Your task to perform on an android device: Go to Yahoo.com Image 0: 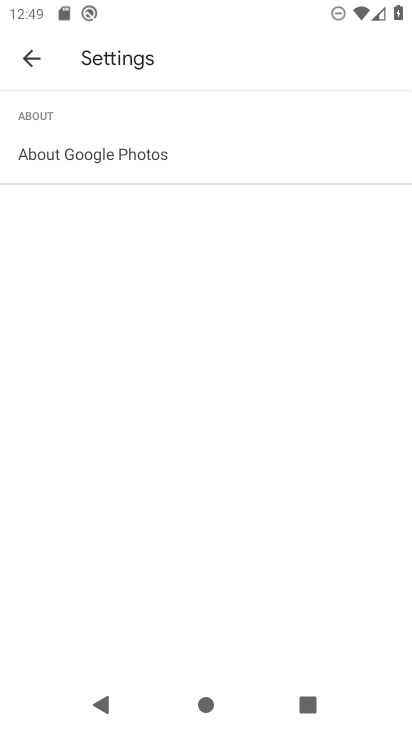
Step 0: press home button
Your task to perform on an android device: Go to Yahoo.com Image 1: 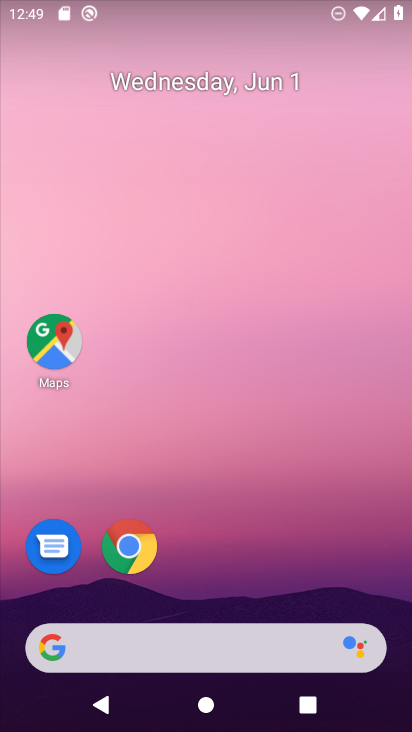
Step 1: click (122, 553)
Your task to perform on an android device: Go to Yahoo.com Image 2: 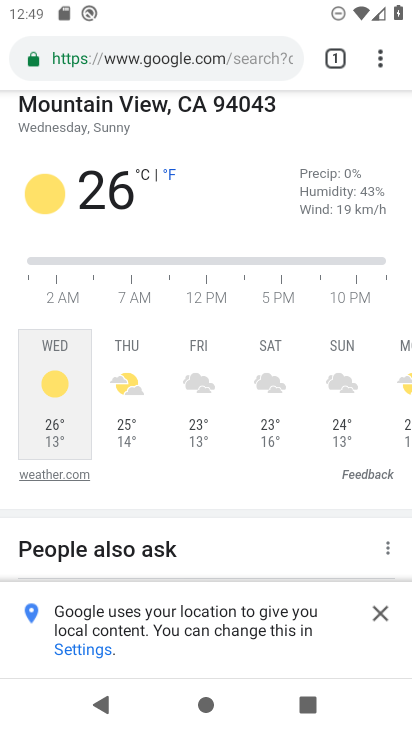
Step 2: click (334, 59)
Your task to perform on an android device: Go to Yahoo.com Image 3: 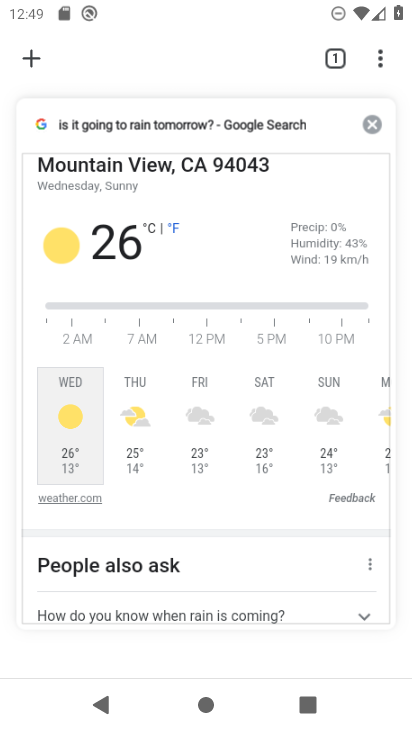
Step 3: click (33, 57)
Your task to perform on an android device: Go to Yahoo.com Image 4: 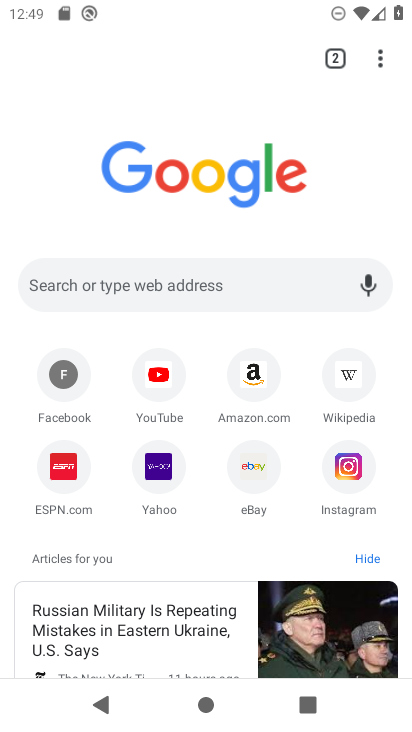
Step 4: click (160, 481)
Your task to perform on an android device: Go to Yahoo.com Image 5: 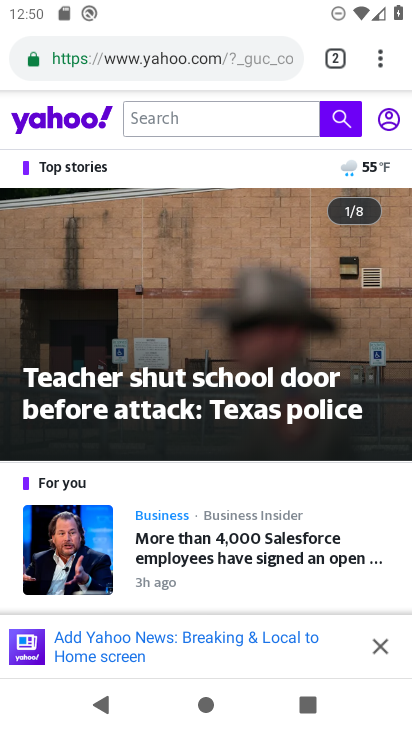
Step 5: task complete